Your task to perform on an android device: Go to privacy settings Image 0: 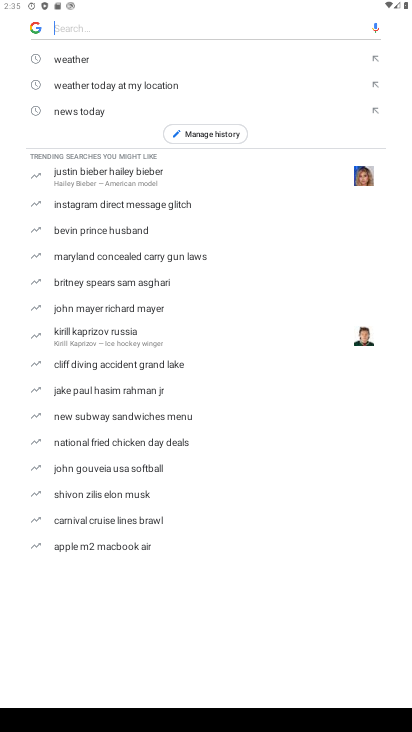
Step 0: press back button
Your task to perform on an android device: Go to privacy settings Image 1: 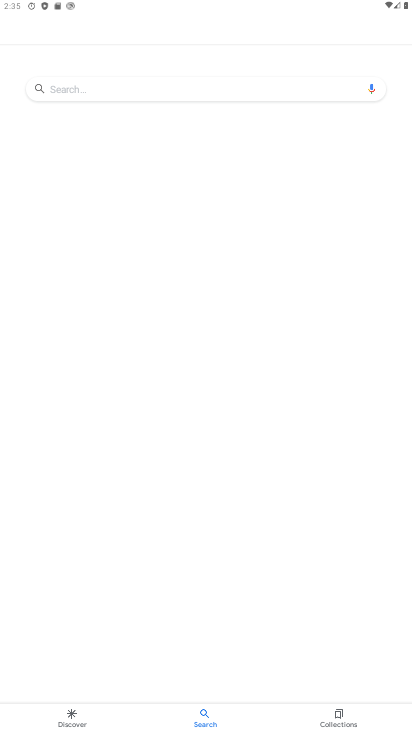
Step 1: press back button
Your task to perform on an android device: Go to privacy settings Image 2: 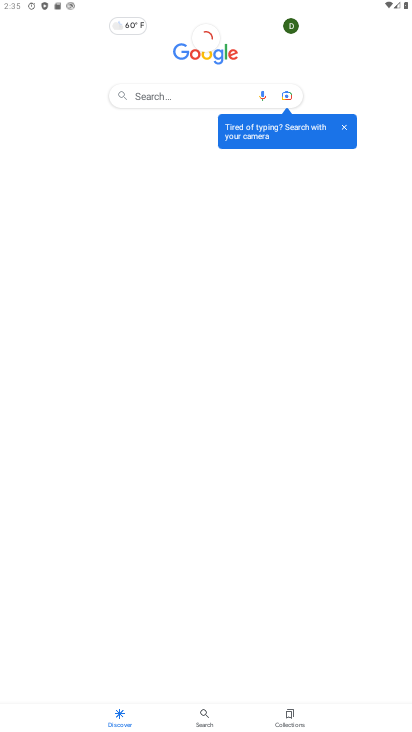
Step 2: press back button
Your task to perform on an android device: Go to privacy settings Image 3: 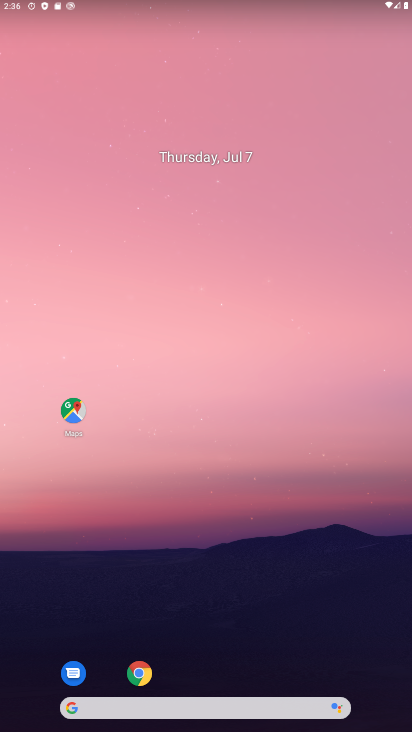
Step 3: drag from (222, 674) to (137, 24)
Your task to perform on an android device: Go to privacy settings Image 4: 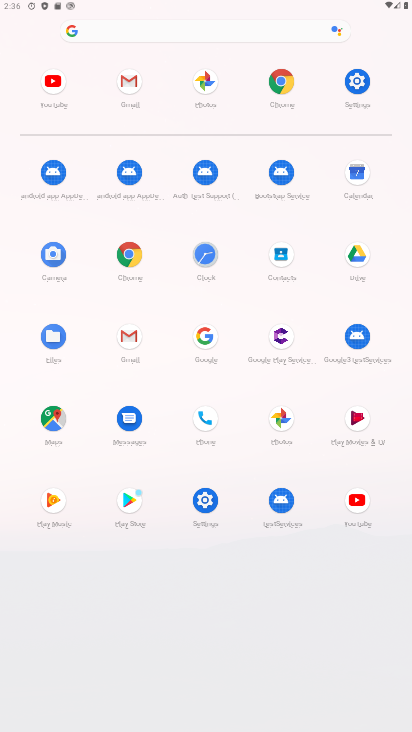
Step 4: click (177, 519)
Your task to perform on an android device: Go to privacy settings Image 5: 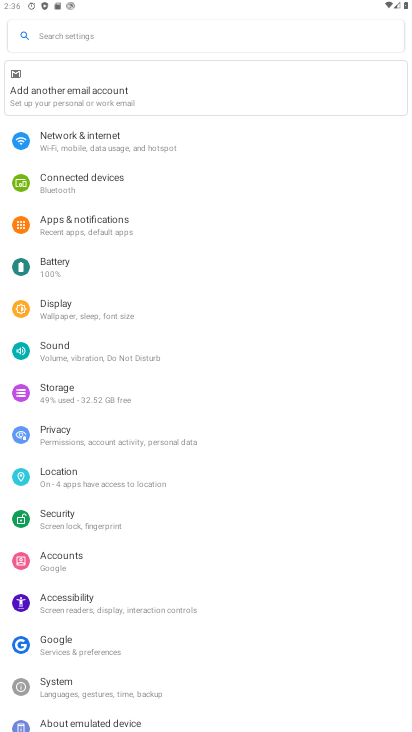
Step 5: click (74, 442)
Your task to perform on an android device: Go to privacy settings Image 6: 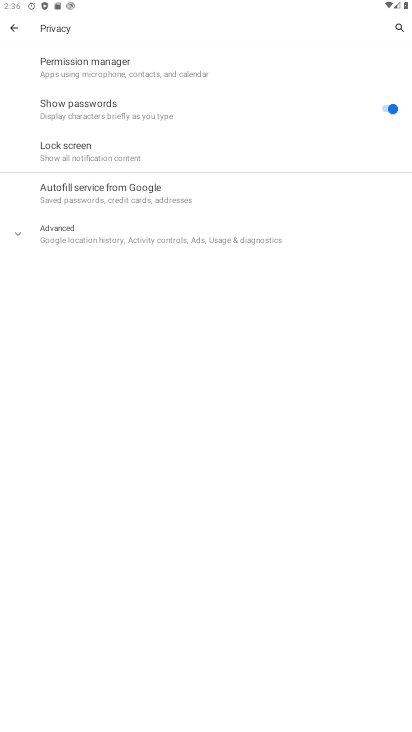
Step 6: task complete